Your task to perform on an android device: Open Google Chrome Image 0: 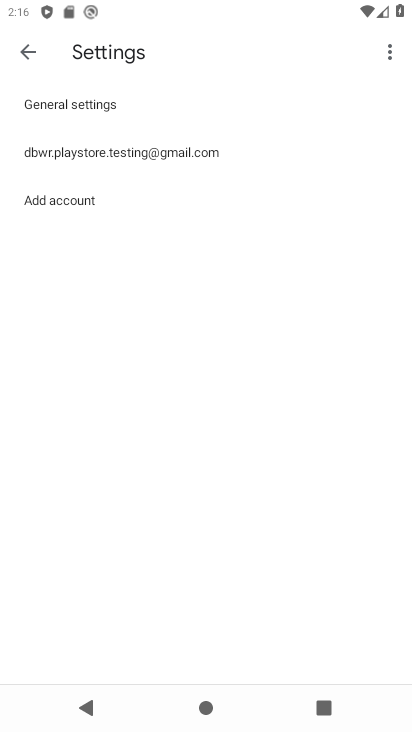
Step 0: press home button
Your task to perform on an android device: Open Google Chrome Image 1: 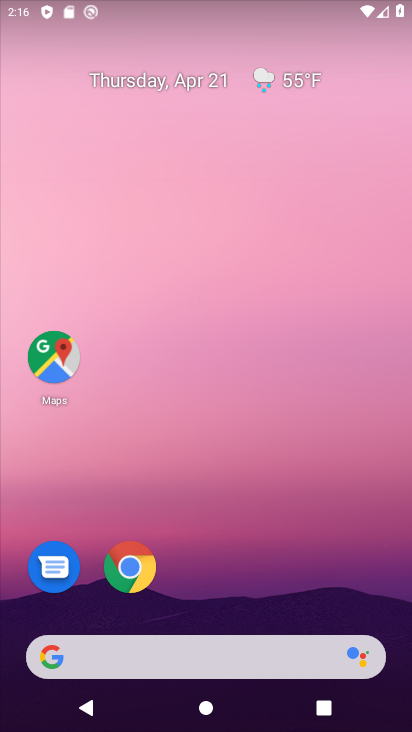
Step 1: drag from (220, 565) to (243, 161)
Your task to perform on an android device: Open Google Chrome Image 2: 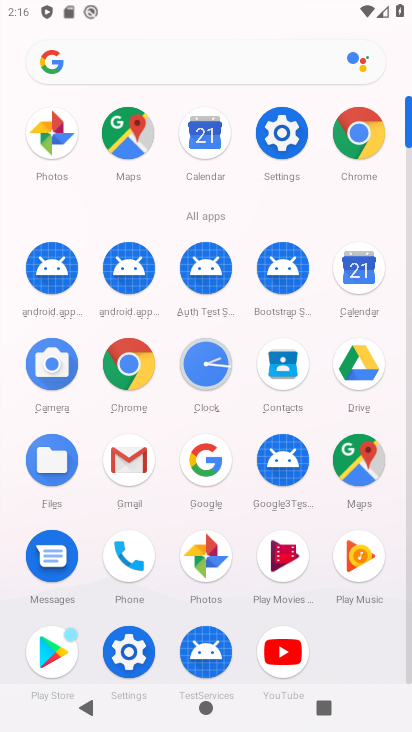
Step 2: click (132, 363)
Your task to perform on an android device: Open Google Chrome Image 3: 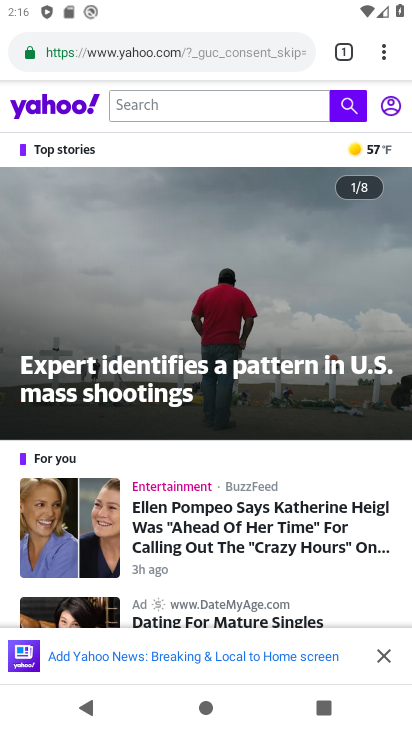
Step 3: task complete